Your task to perform on an android device: Open the calendar app, open the side menu, and click the "Day" option Image 0: 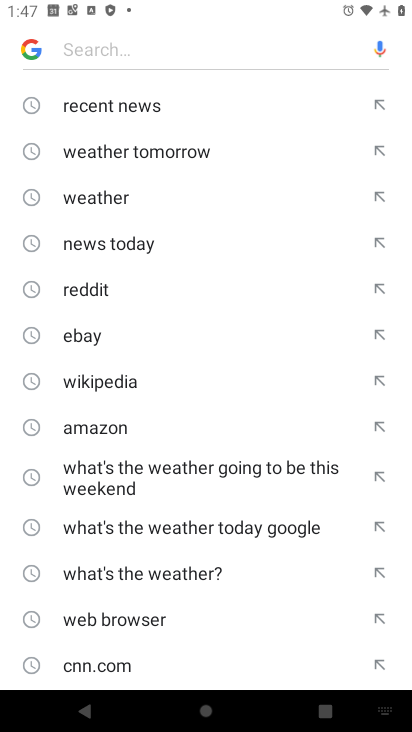
Step 0: press home button
Your task to perform on an android device: Open the calendar app, open the side menu, and click the "Day" option Image 1: 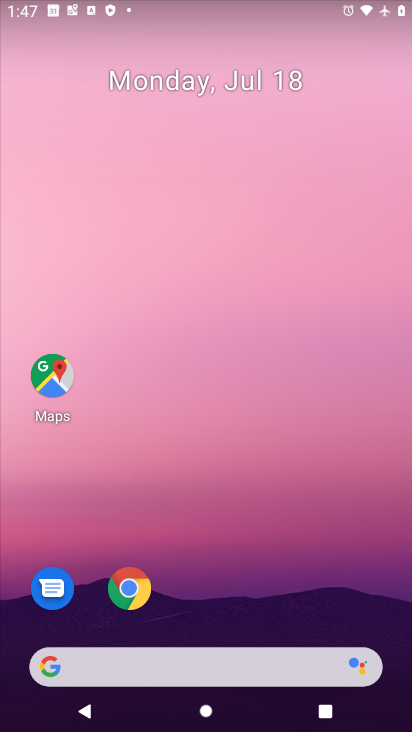
Step 1: drag from (225, 686) to (286, 334)
Your task to perform on an android device: Open the calendar app, open the side menu, and click the "Day" option Image 2: 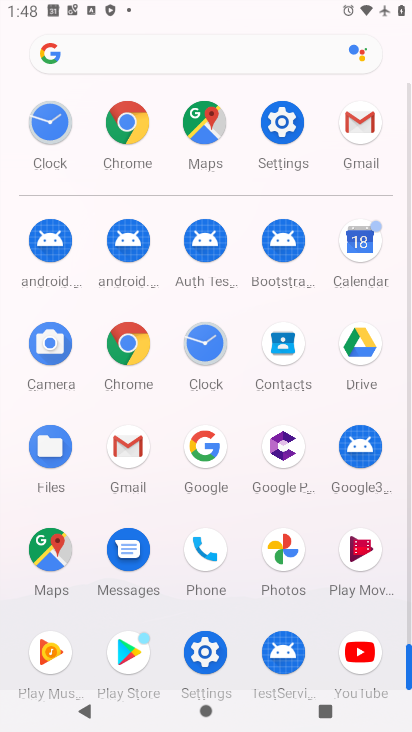
Step 2: click (356, 248)
Your task to perform on an android device: Open the calendar app, open the side menu, and click the "Day" option Image 3: 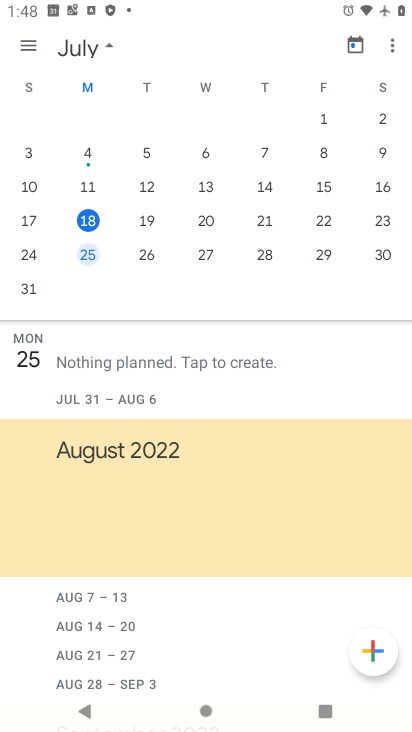
Step 3: click (43, 48)
Your task to perform on an android device: Open the calendar app, open the side menu, and click the "Day" option Image 4: 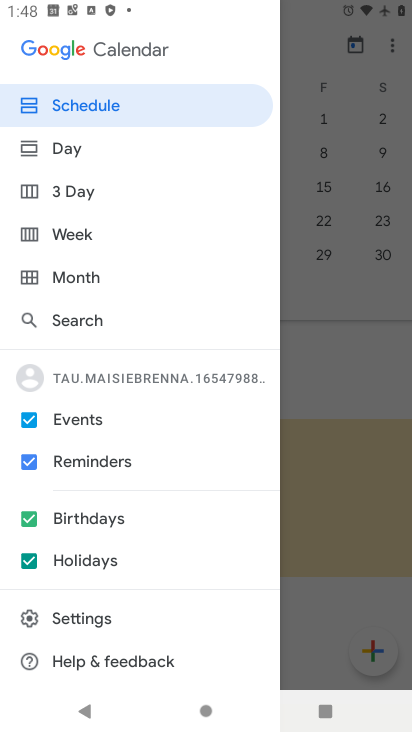
Step 4: click (82, 151)
Your task to perform on an android device: Open the calendar app, open the side menu, and click the "Day" option Image 5: 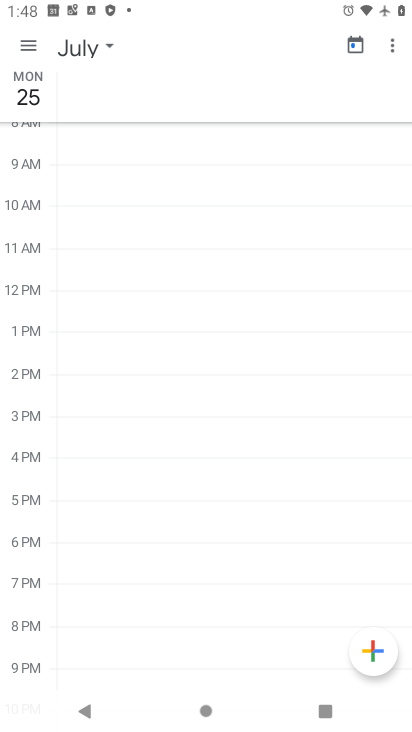
Step 5: task complete